Your task to perform on an android device: Turn off the flashlight Image 0: 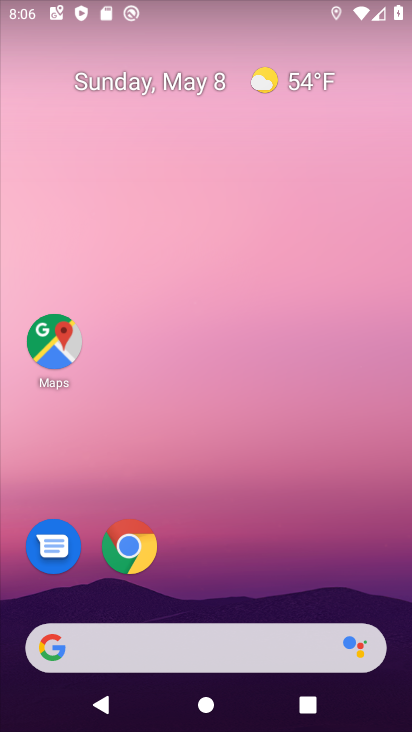
Step 0: drag from (390, 513) to (339, 159)
Your task to perform on an android device: Turn off the flashlight Image 1: 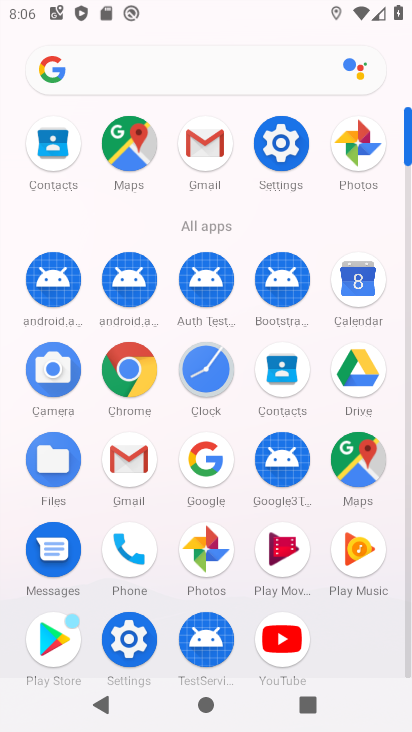
Step 1: click (291, 153)
Your task to perform on an android device: Turn off the flashlight Image 2: 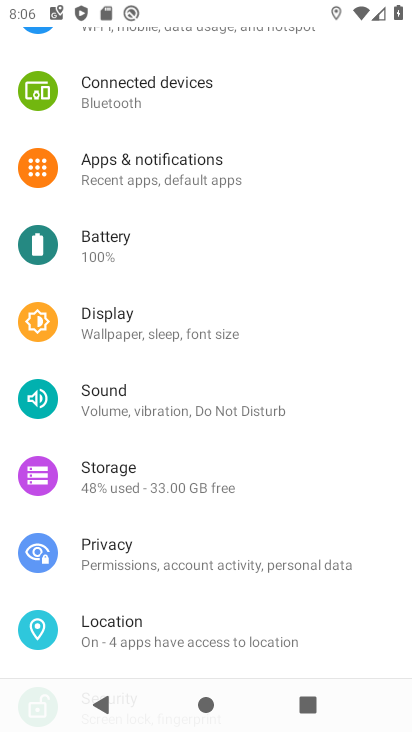
Step 2: click (149, 321)
Your task to perform on an android device: Turn off the flashlight Image 3: 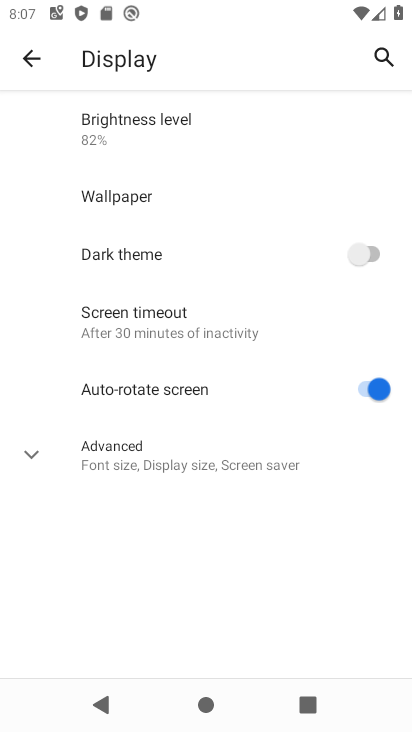
Step 3: task complete